Your task to perform on an android device: Go to settings Image 0: 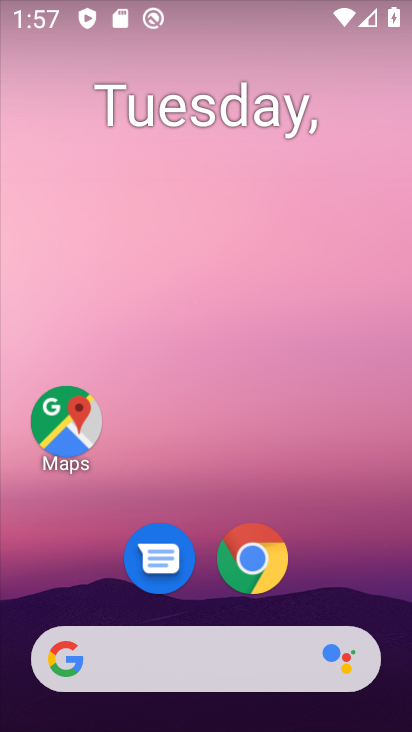
Step 0: drag from (201, 525) to (246, 0)
Your task to perform on an android device: Go to settings Image 1: 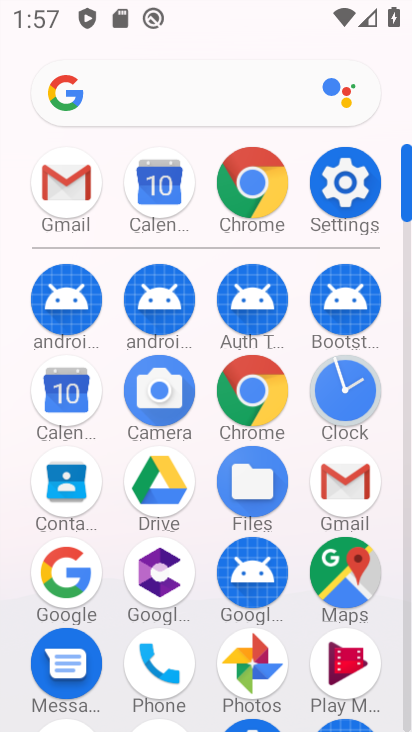
Step 1: click (349, 187)
Your task to perform on an android device: Go to settings Image 2: 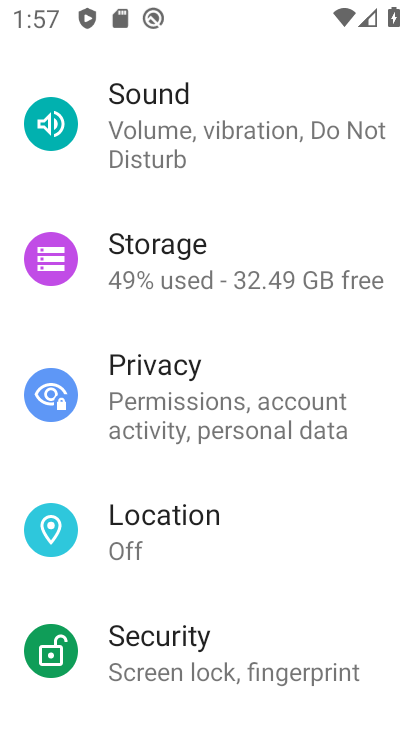
Step 2: task complete